Your task to perform on an android device: move a message to another label in the gmail app Image 0: 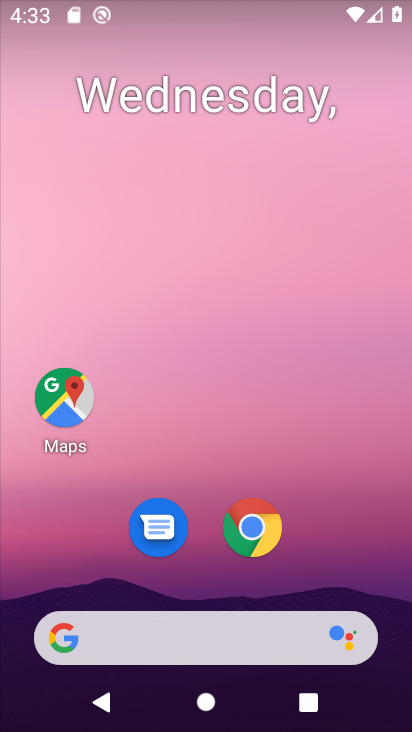
Step 0: drag from (231, 643) to (277, 143)
Your task to perform on an android device: move a message to another label in the gmail app Image 1: 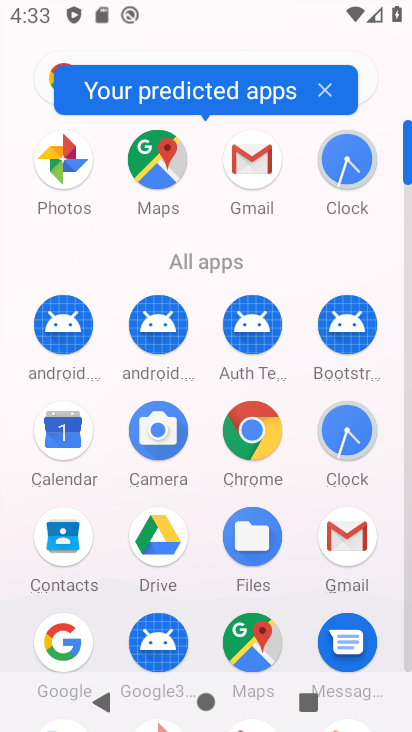
Step 1: click (359, 538)
Your task to perform on an android device: move a message to another label in the gmail app Image 2: 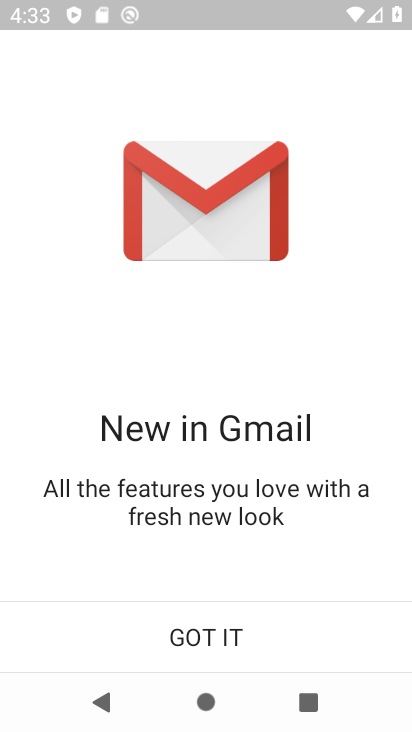
Step 2: click (223, 614)
Your task to perform on an android device: move a message to another label in the gmail app Image 3: 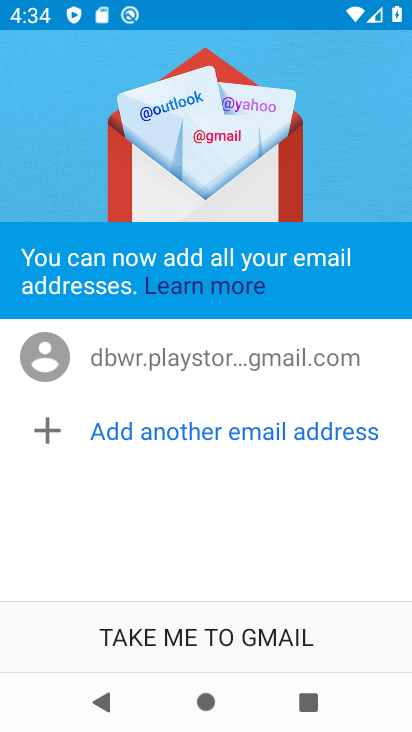
Step 3: click (233, 620)
Your task to perform on an android device: move a message to another label in the gmail app Image 4: 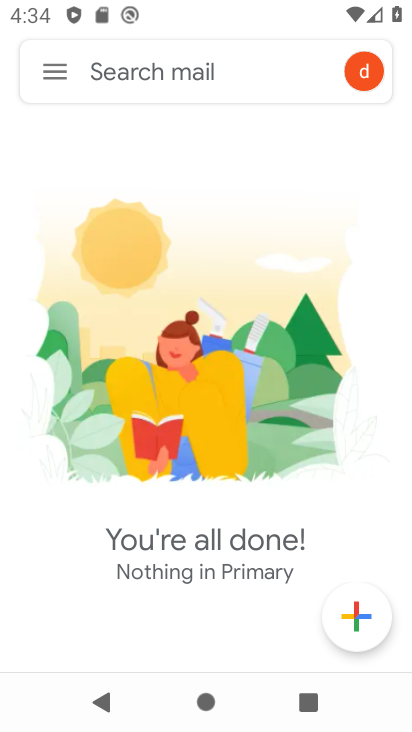
Step 4: click (60, 74)
Your task to perform on an android device: move a message to another label in the gmail app Image 5: 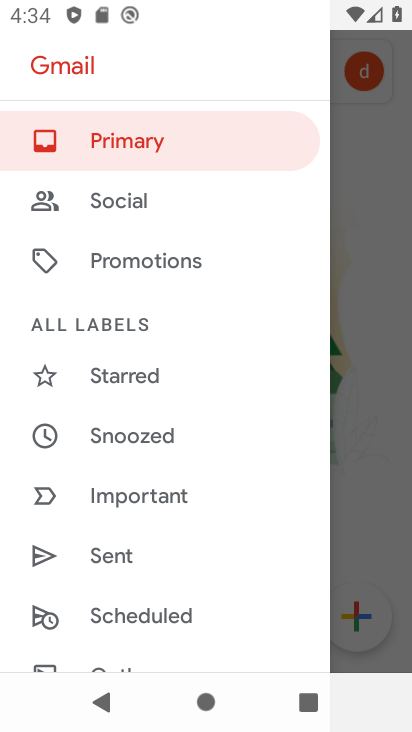
Step 5: drag from (115, 547) to (218, 14)
Your task to perform on an android device: move a message to another label in the gmail app Image 6: 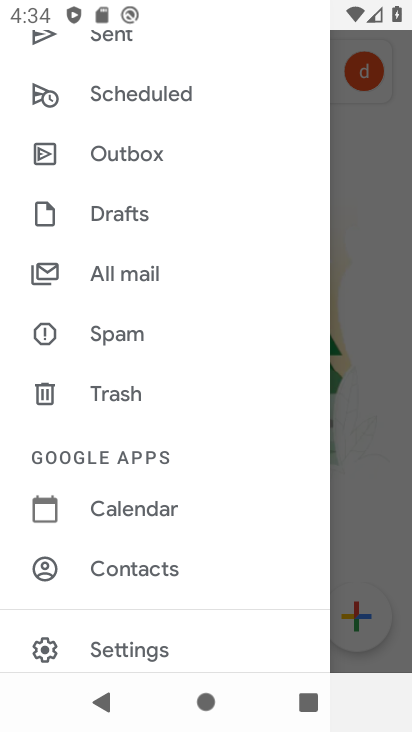
Step 6: click (108, 271)
Your task to perform on an android device: move a message to another label in the gmail app Image 7: 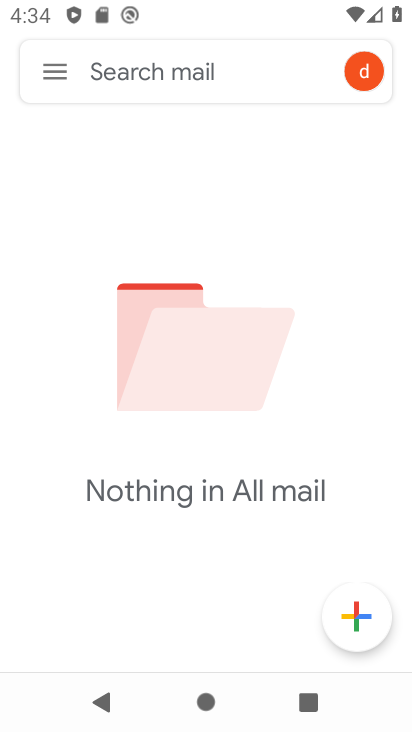
Step 7: task complete